Your task to perform on an android device: check android version Image 0: 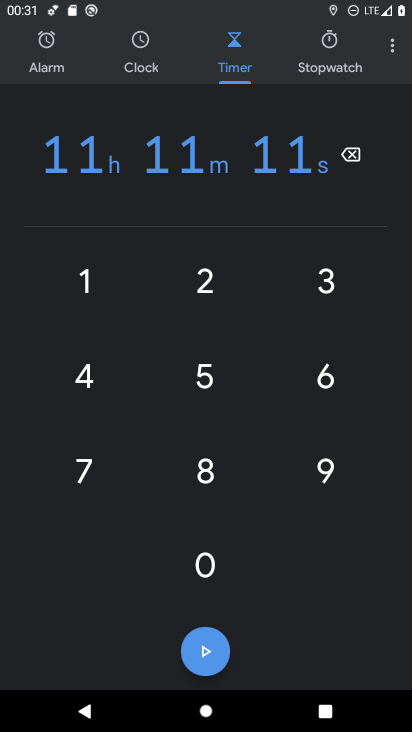
Step 0: press home button
Your task to perform on an android device: check android version Image 1: 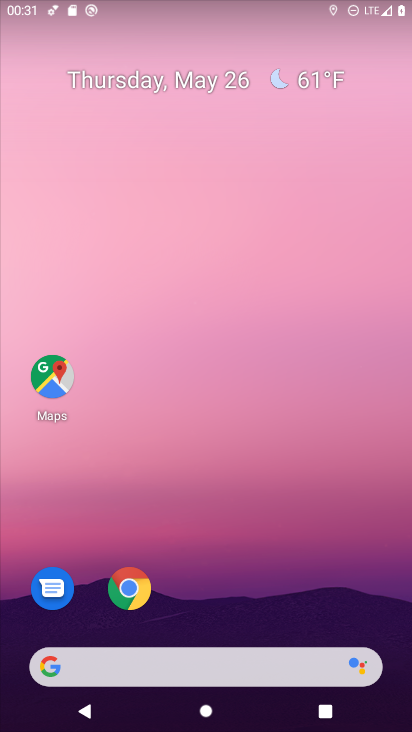
Step 1: drag from (253, 581) to (183, 166)
Your task to perform on an android device: check android version Image 2: 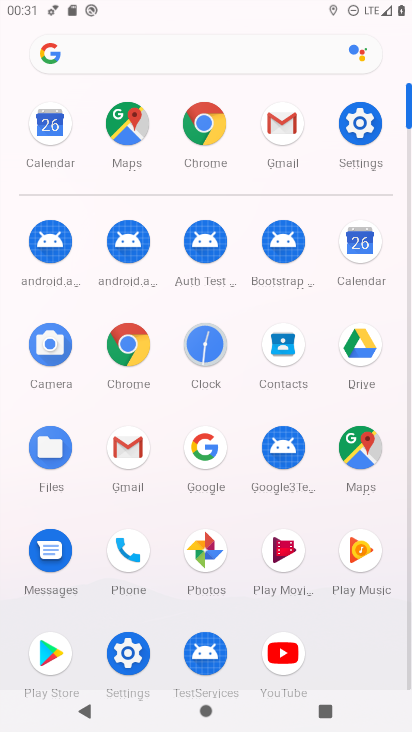
Step 2: click (357, 118)
Your task to perform on an android device: check android version Image 3: 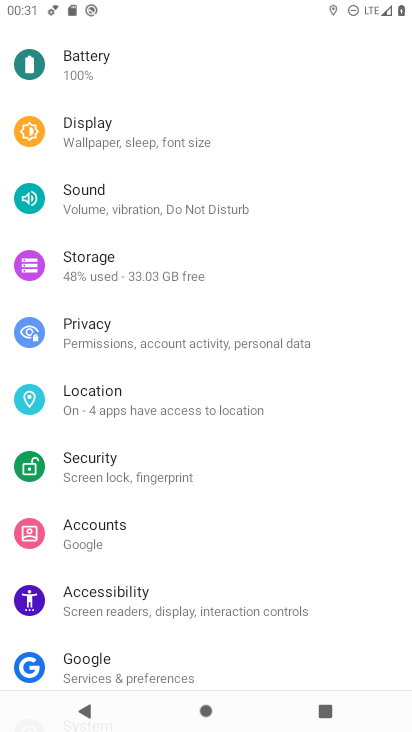
Step 3: drag from (197, 571) to (140, 221)
Your task to perform on an android device: check android version Image 4: 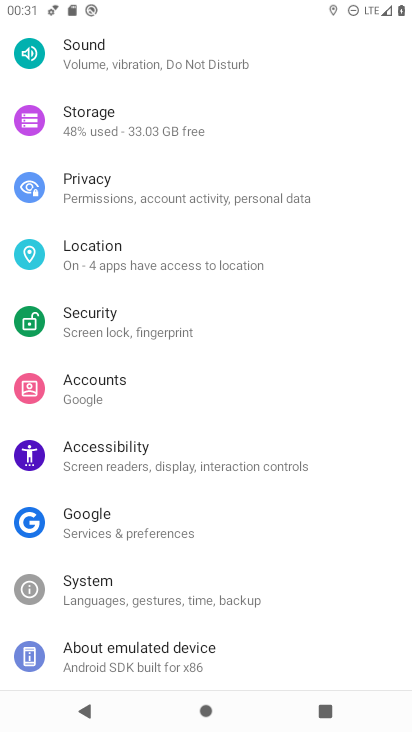
Step 4: click (117, 658)
Your task to perform on an android device: check android version Image 5: 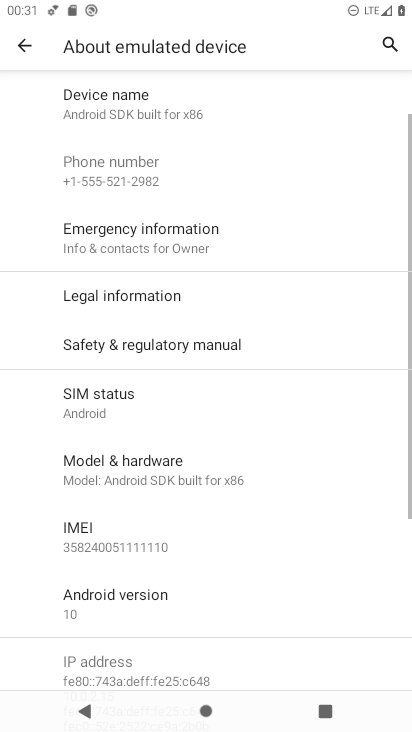
Step 5: task complete